Your task to perform on an android device: What's the weather going to be this weekend? Image 0: 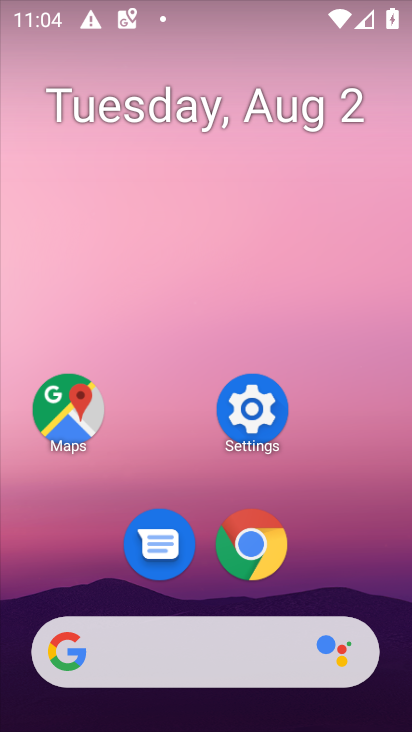
Step 0: press home button
Your task to perform on an android device: What's the weather going to be this weekend? Image 1: 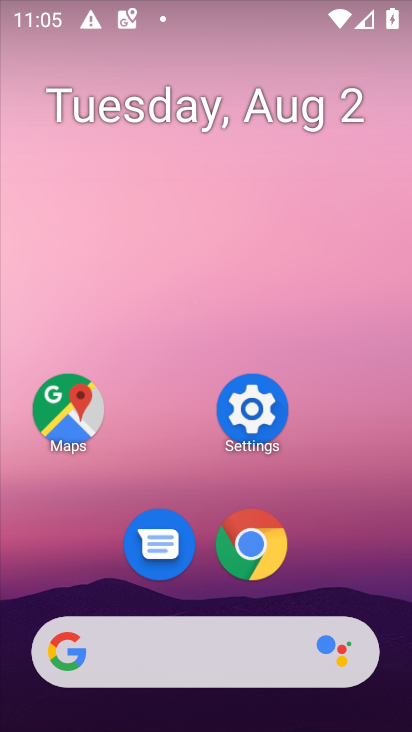
Step 1: click (156, 650)
Your task to perform on an android device: What's the weather going to be this weekend? Image 2: 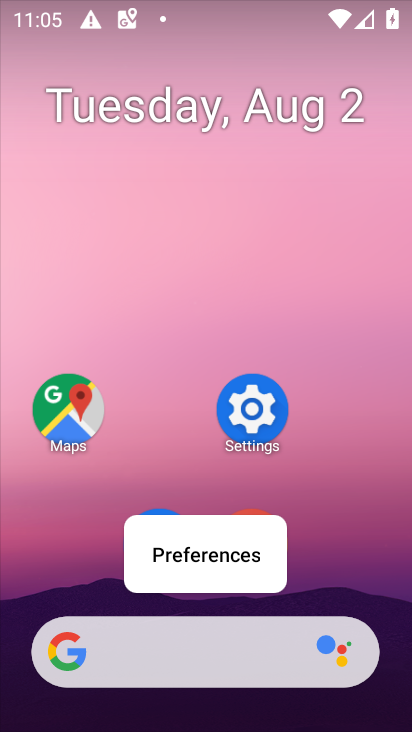
Step 2: click (171, 635)
Your task to perform on an android device: What's the weather going to be this weekend? Image 3: 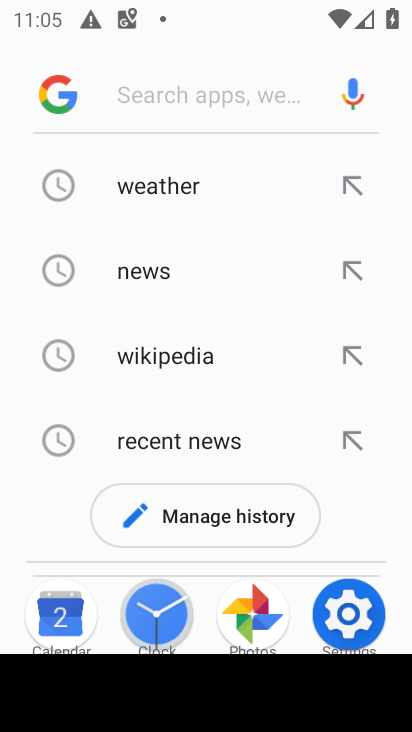
Step 3: click (187, 183)
Your task to perform on an android device: What's the weather going to be this weekend? Image 4: 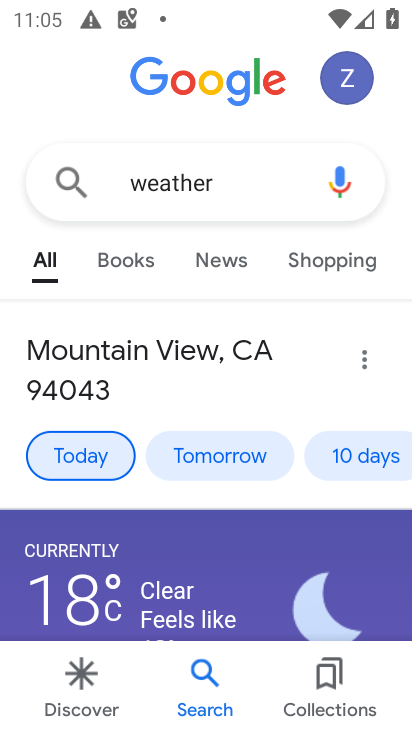
Step 4: click (355, 460)
Your task to perform on an android device: What's the weather going to be this weekend? Image 5: 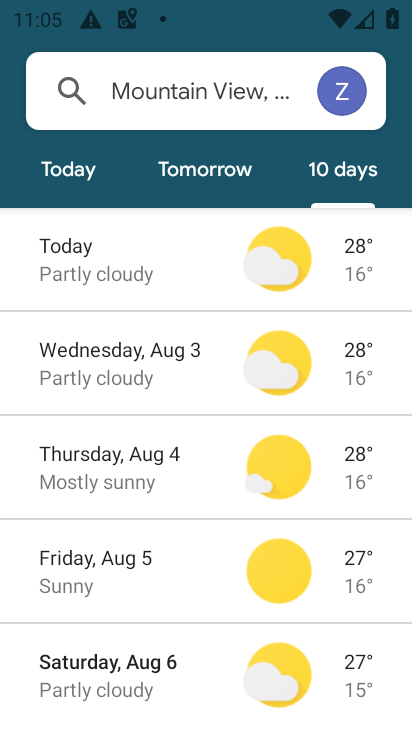
Step 5: task complete